Your task to perform on an android device: empty trash in the gmail app Image 0: 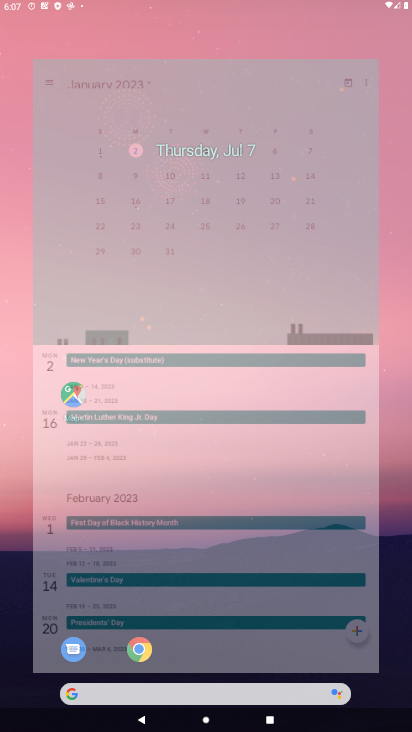
Step 0: drag from (352, 670) to (262, 35)
Your task to perform on an android device: empty trash in the gmail app Image 1: 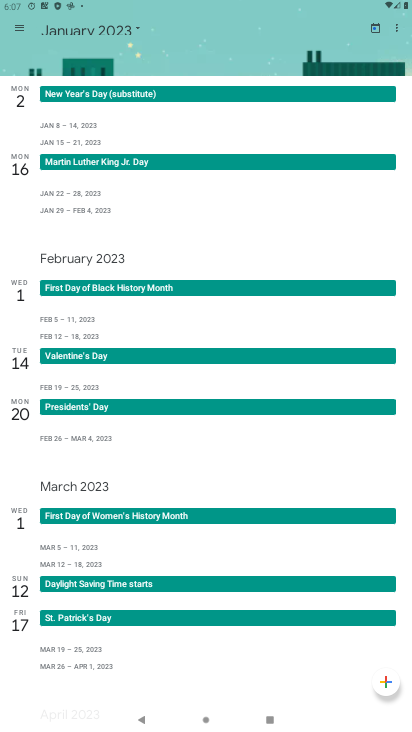
Step 1: press home button
Your task to perform on an android device: empty trash in the gmail app Image 2: 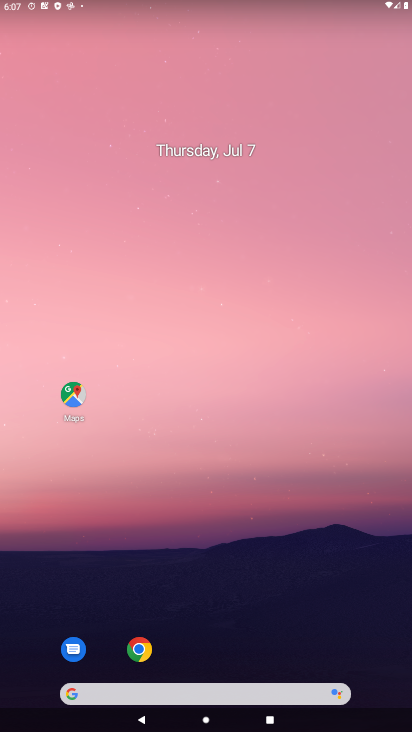
Step 2: drag from (373, 615) to (251, 42)
Your task to perform on an android device: empty trash in the gmail app Image 3: 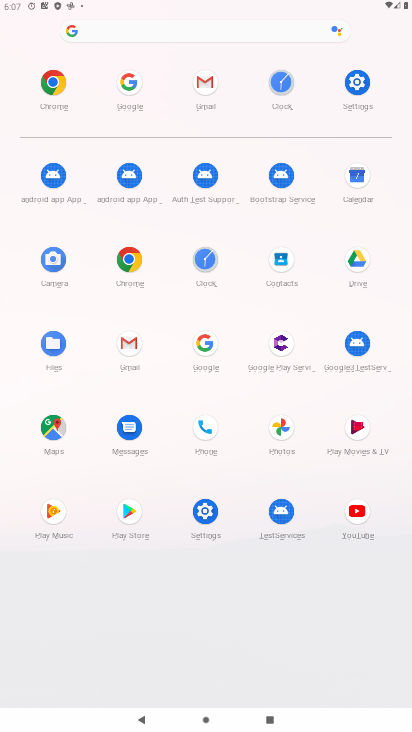
Step 3: click (118, 338)
Your task to perform on an android device: empty trash in the gmail app Image 4: 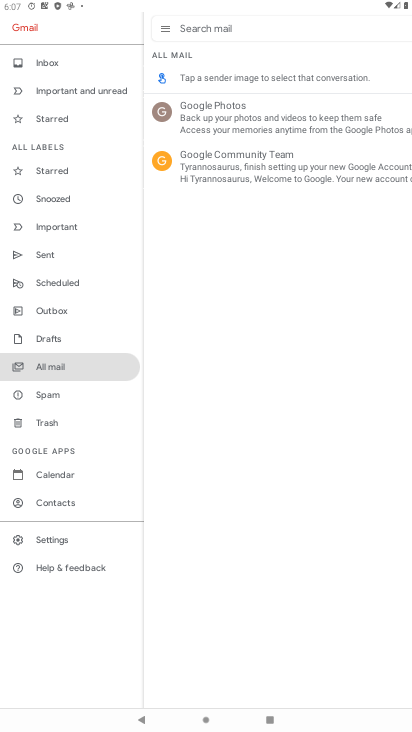
Step 4: click (44, 426)
Your task to perform on an android device: empty trash in the gmail app Image 5: 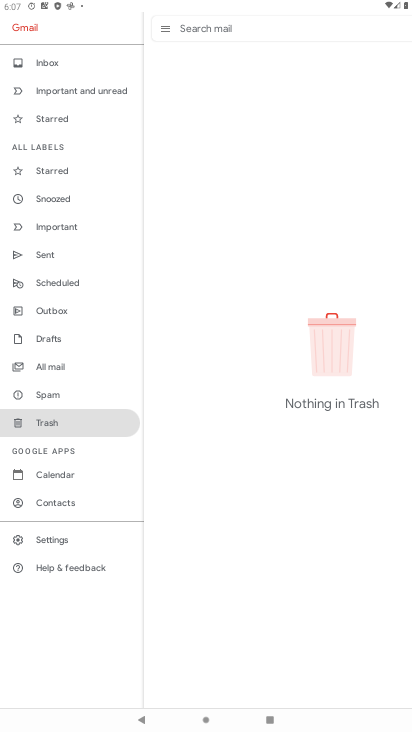
Step 5: task complete